Your task to perform on an android device: change the clock display to show seconds Image 0: 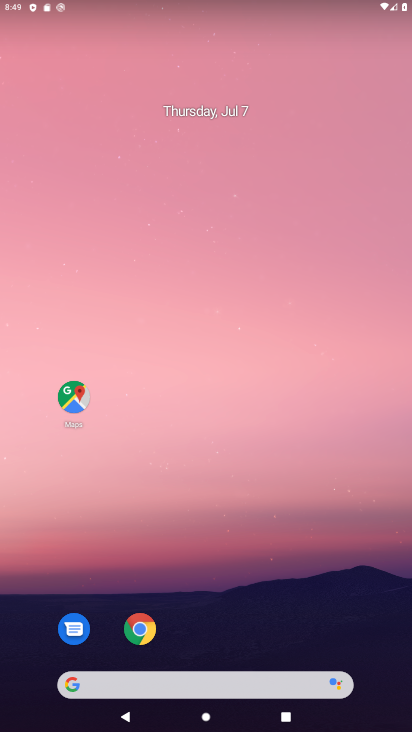
Step 0: drag from (252, 546) to (200, 126)
Your task to perform on an android device: change the clock display to show seconds Image 1: 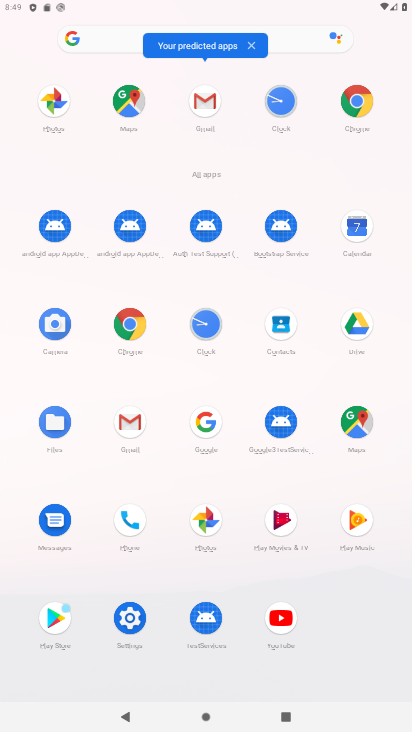
Step 1: click (286, 99)
Your task to perform on an android device: change the clock display to show seconds Image 2: 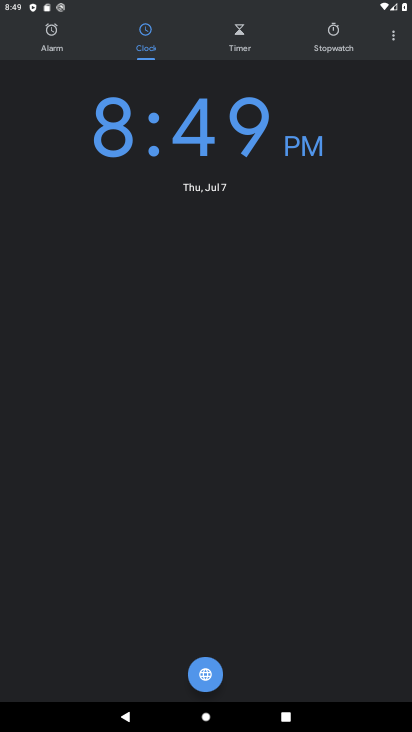
Step 2: click (395, 34)
Your task to perform on an android device: change the clock display to show seconds Image 3: 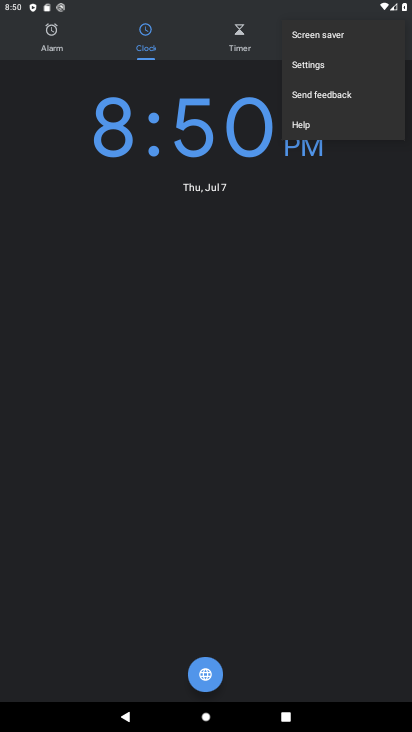
Step 3: click (317, 63)
Your task to perform on an android device: change the clock display to show seconds Image 4: 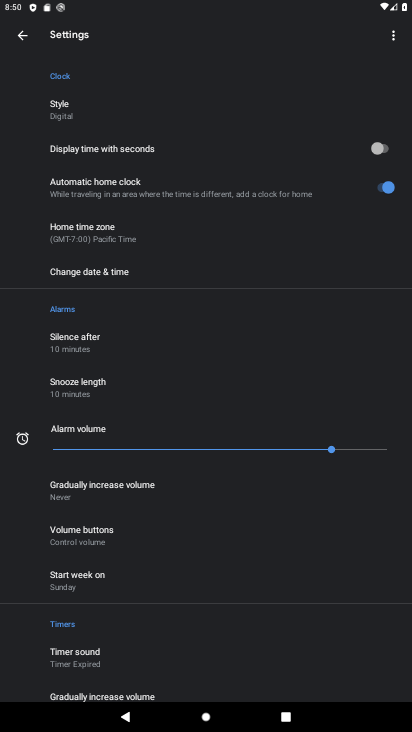
Step 4: click (377, 150)
Your task to perform on an android device: change the clock display to show seconds Image 5: 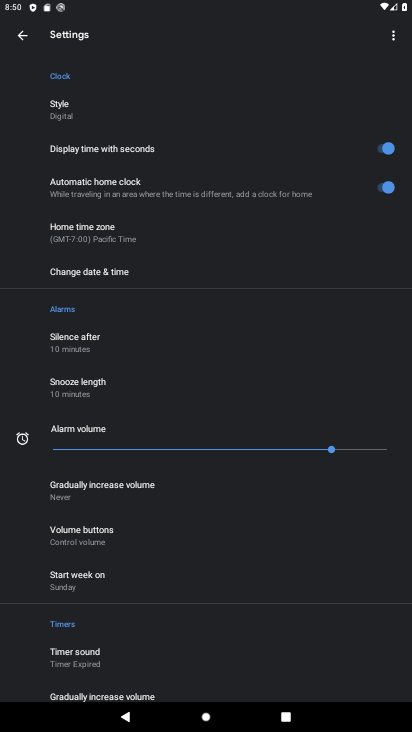
Step 5: task complete